Your task to perform on an android device: turn on priority inbox in the gmail app Image 0: 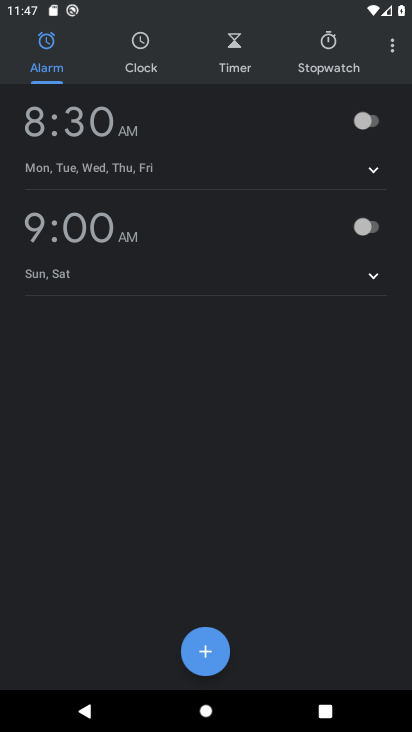
Step 0: press home button
Your task to perform on an android device: turn on priority inbox in the gmail app Image 1: 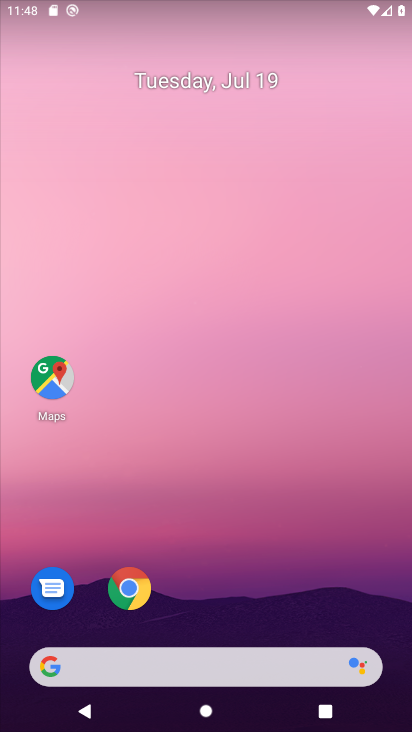
Step 1: drag from (222, 603) to (262, 69)
Your task to perform on an android device: turn on priority inbox in the gmail app Image 2: 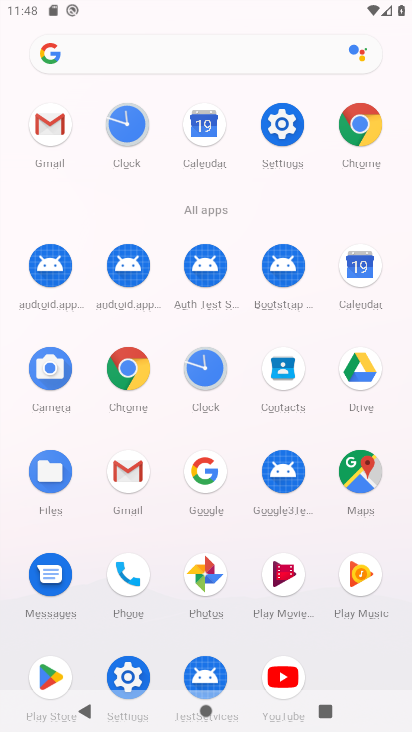
Step 2: click (125, 488)
Your task to perform on an android device: turn on priority inbox in the gmail app Image 3: 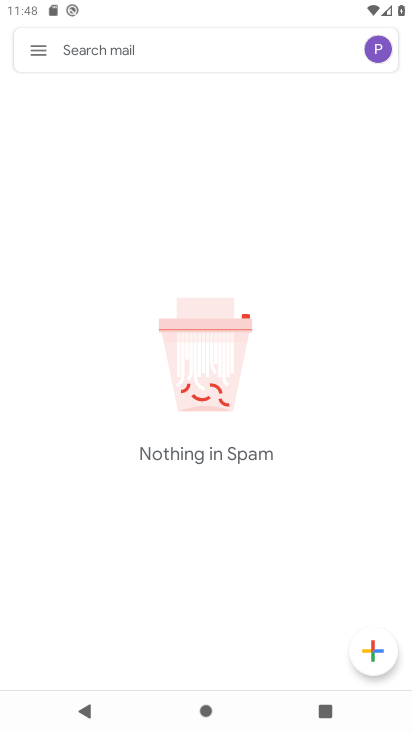
Step 3: click (34, 55)
Your task to perform on an android device: turn on priority inbox in the gmail app Image 4: 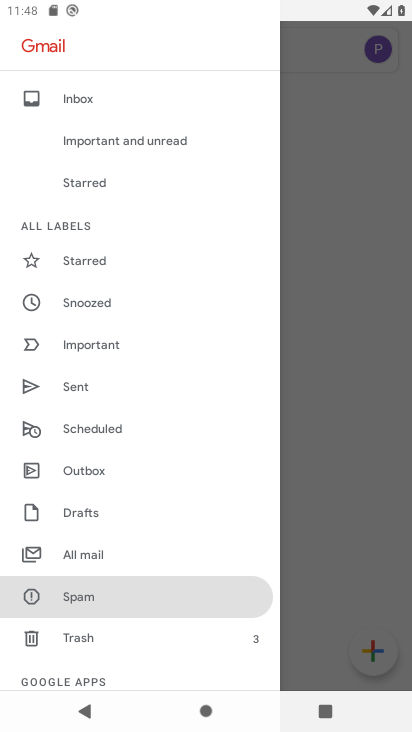
Step 4: drag from (87, 616) to (105, 288)
Your task to perform on an android device: turn on priority inbox in the gmail app Image 5: 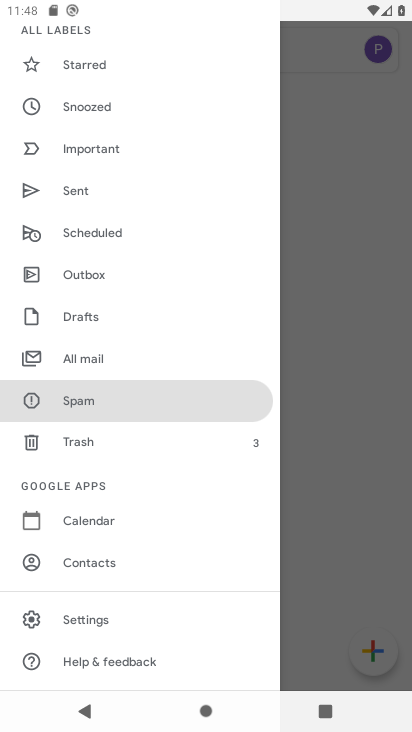
Step 5: click (101, 614)
Your task to perform on an android device: turn on priority inbox in the gmail app Image 6: 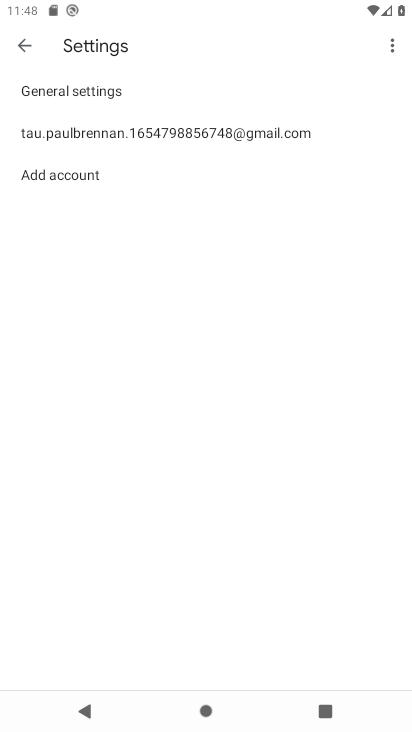
Step 6: click (114, 125)
Your task to perform on an android device: turn on priority inbox in the gmail app Image 7: 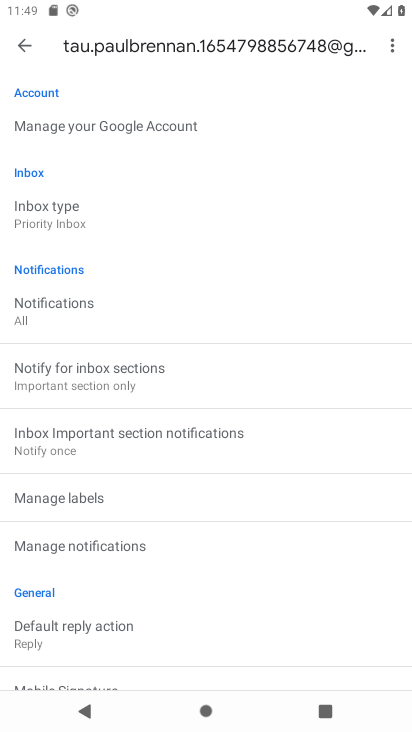
Step 7: click (77, 212)
Your task to perform on an android device: turn on priority inbox in the gmail app Image 8: 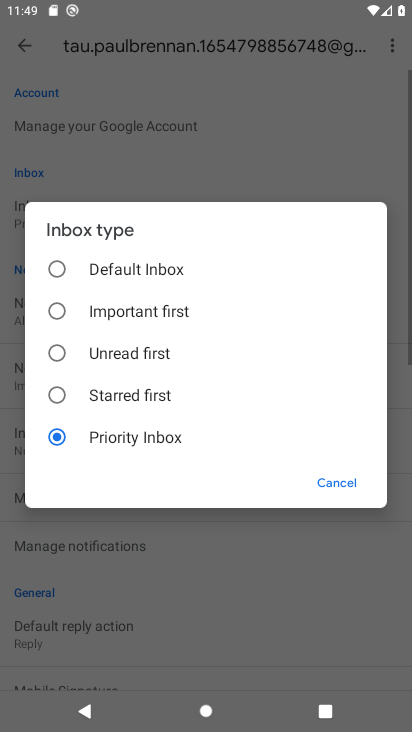
Step 8: task complete